Your task to perform on an android device: Open Google Image 0: 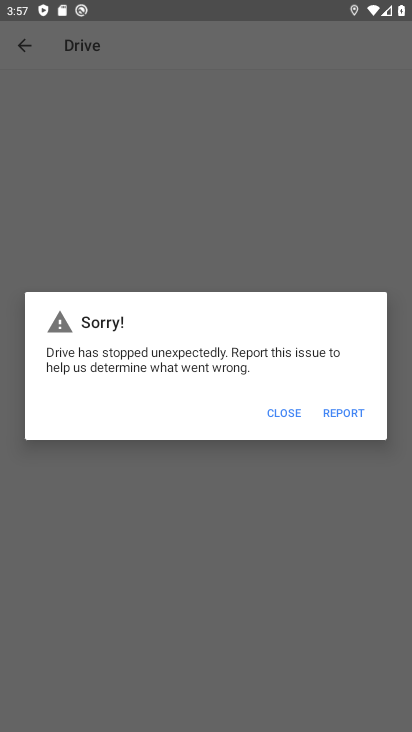
Step 0: press home button
Your task to perform on an android device: Open Google Image 1: 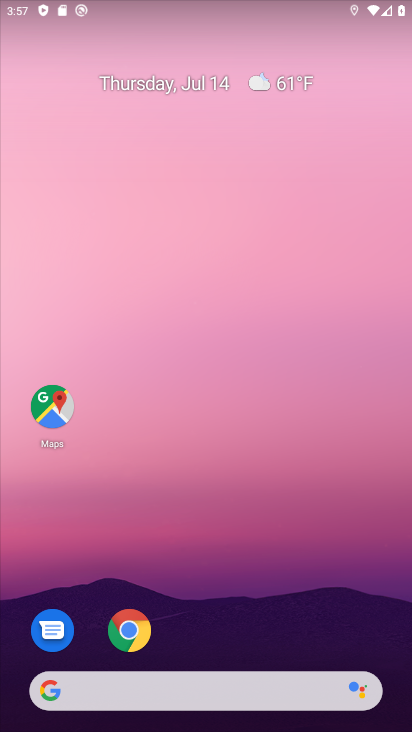
Step 1: drag from (296, 641) to (221, 95)
Your task to perform on an android device: Open Google Image 2: 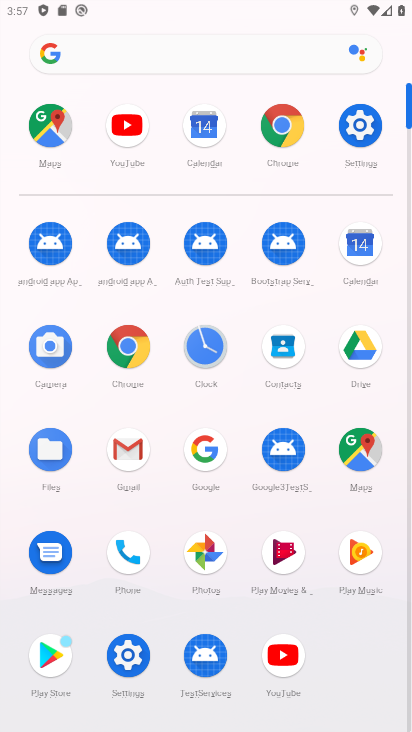
Step 2: click (277, 136)
Your task to perform on an android device: Open Google Image 3: 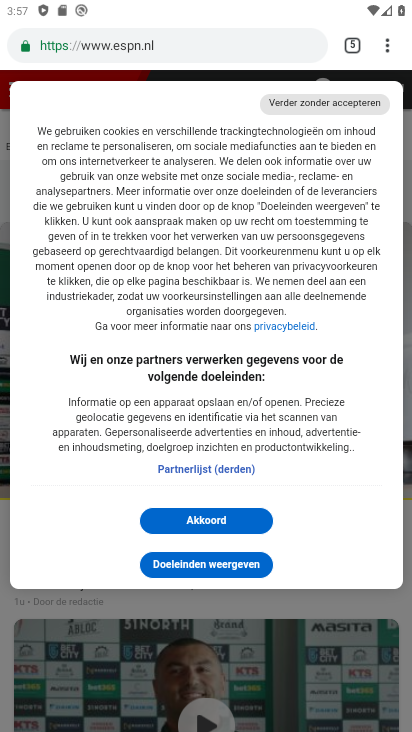
Step 3: click (205, 44)
Your task to perform on an android device: Open Google Image 4: 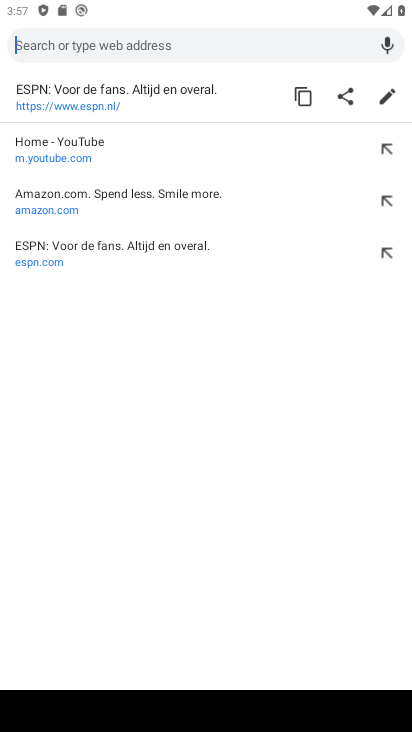
Step 4: type "google"
Your task to perform on an android device: Open Google Image 5: 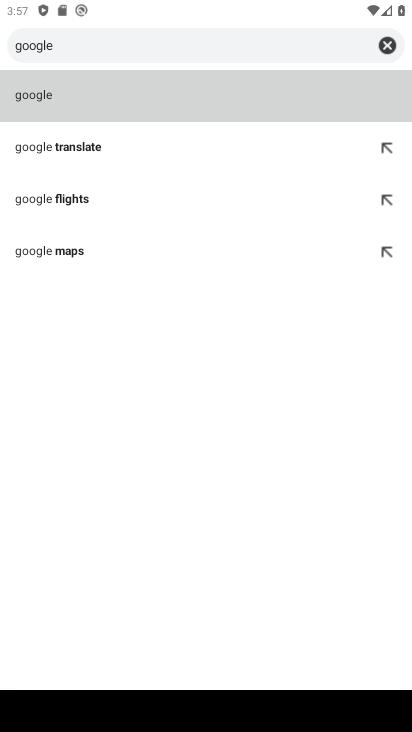
Step 5: click (163, 82)
Your task to perform on an android device: Open Google Image 6: 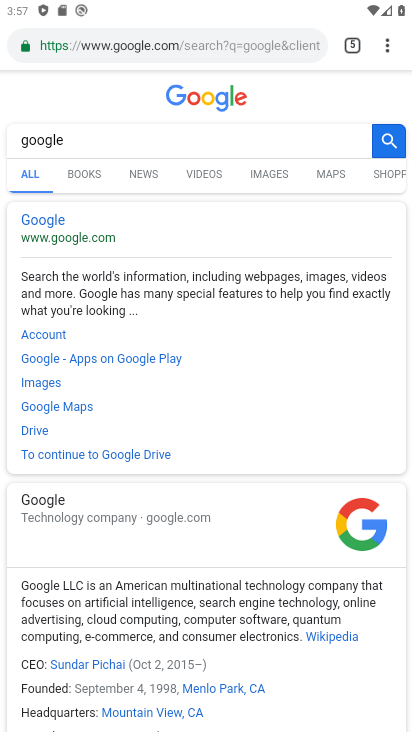
Step 6: task complete